Your task to perform on an android device: open app "Fetch Rewards" Image 0: 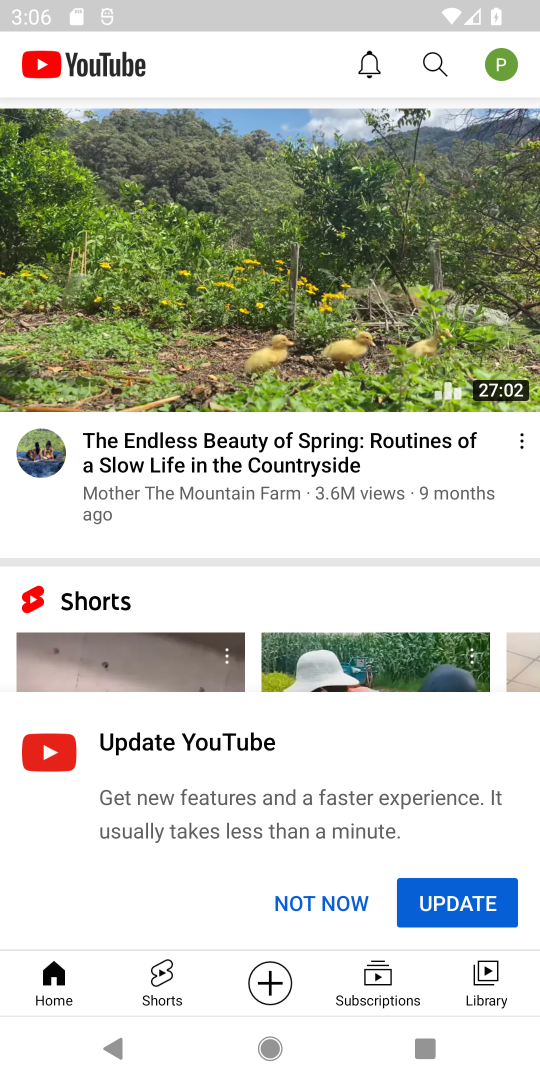
Step 0: press home button
Your task to perform on an android device: open app "Fetch Rewards" Image 1: 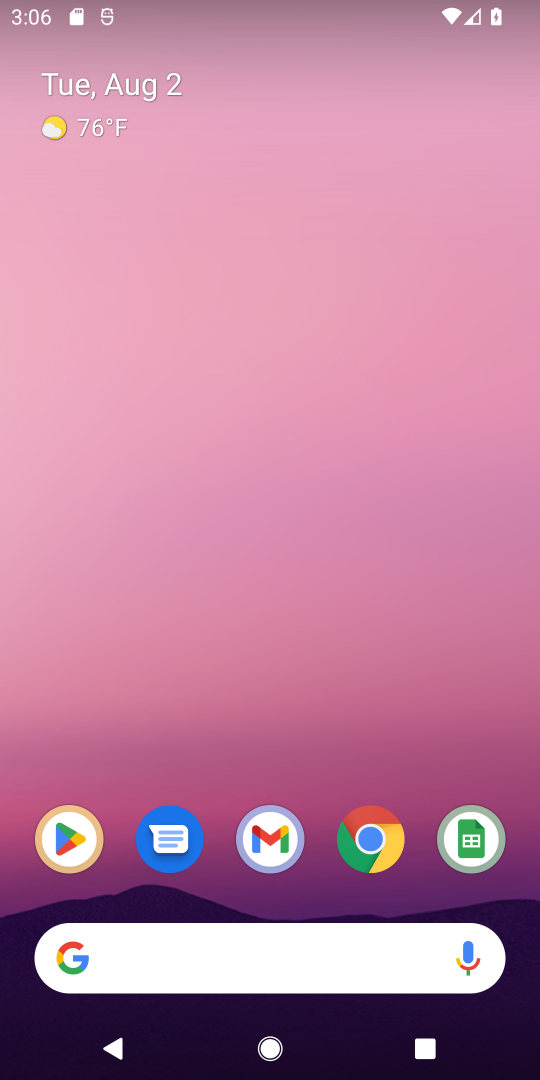
Step 1: click (48, 851)
Your task to perform on an android device: open app "Fetch Rewards" Image 2: 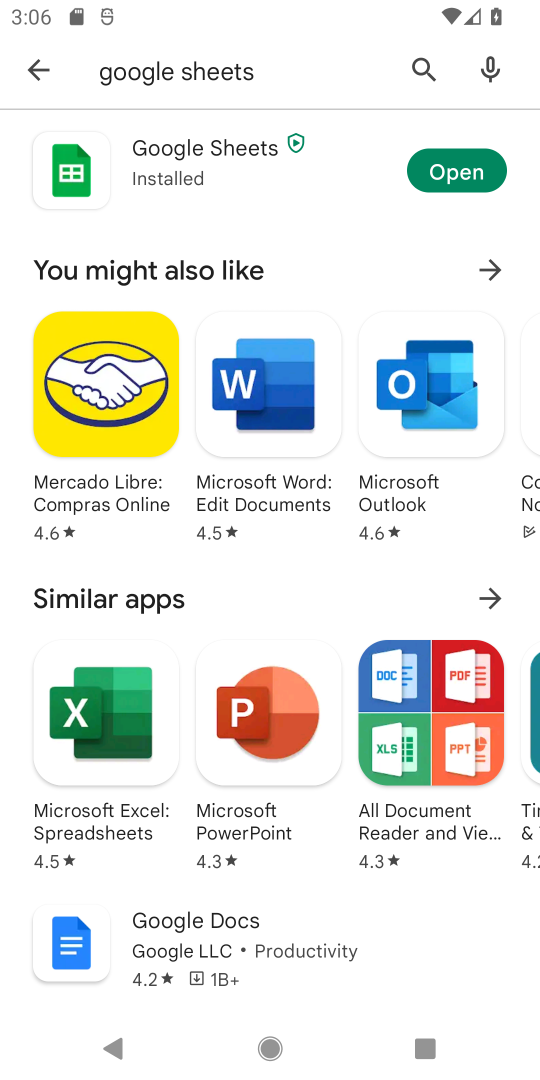
Step 2: click (419, 58)
Your task to perform on an android device: open app "Fetch Rewards" Image 3: 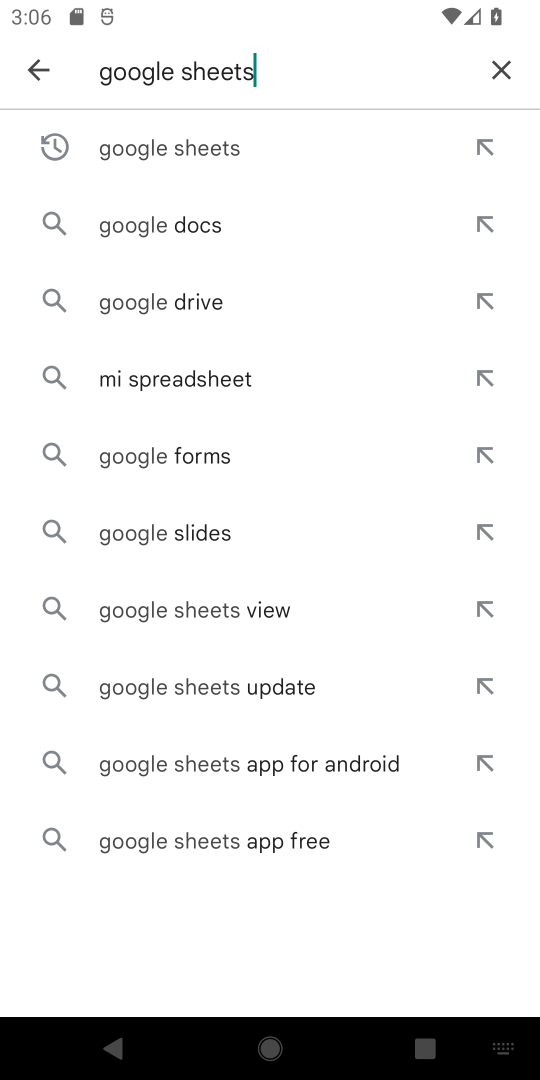
Step 3: click (508, 74)
Your task to perform on an android device: open app "Fetch Rewards" Image 4: 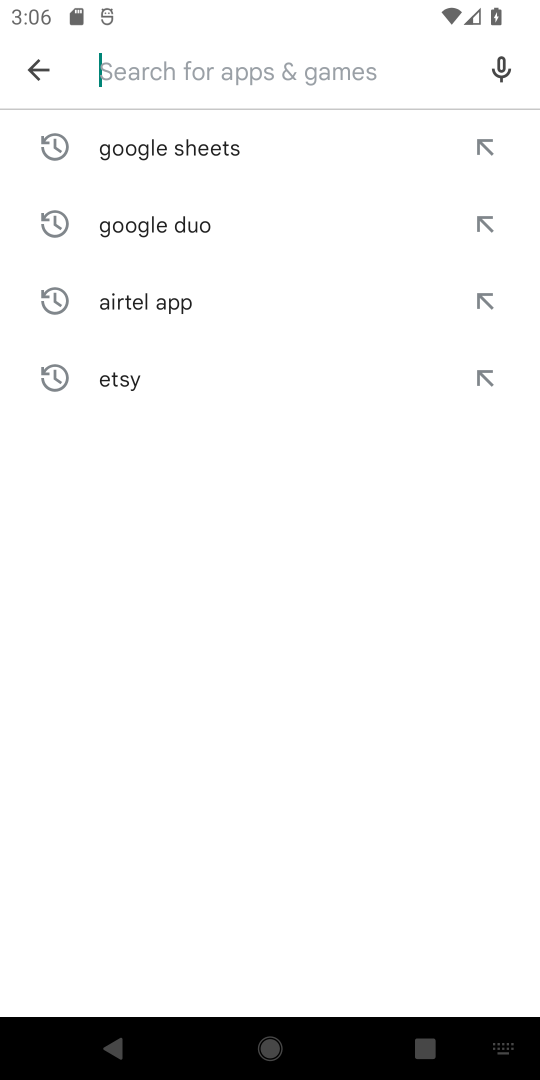
Step 4: type "fetch"
Your task to perform on an android device: open app "Fetch Rewards" Image 5: 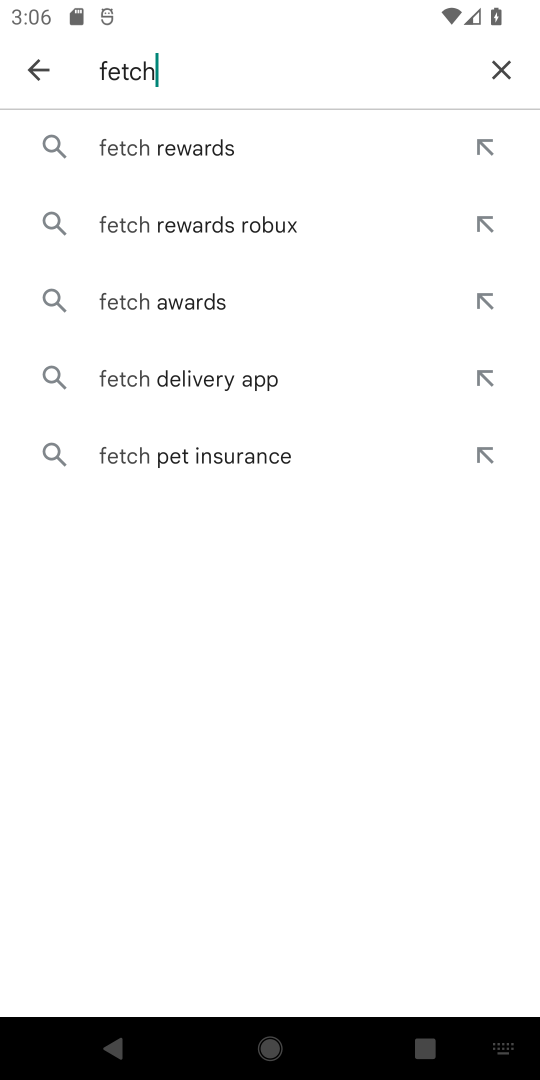
Step 5: click (345, 143)
Your task to perform on an android device: open app "Fetch Rewards" Image 6: 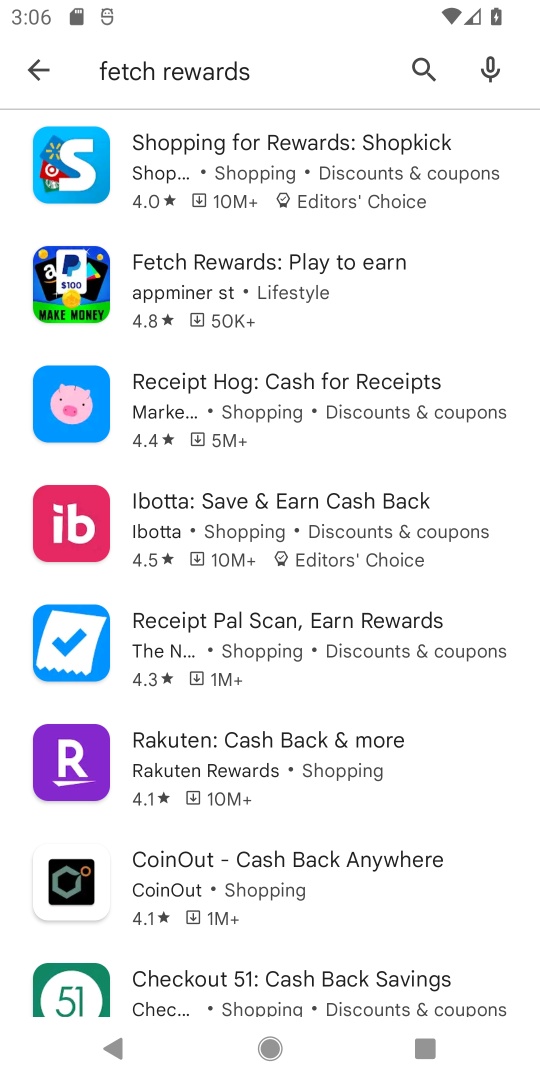
Step 6: task complete